Your task to perform on an android device: turn on the 12-hour format for clock Image 0: 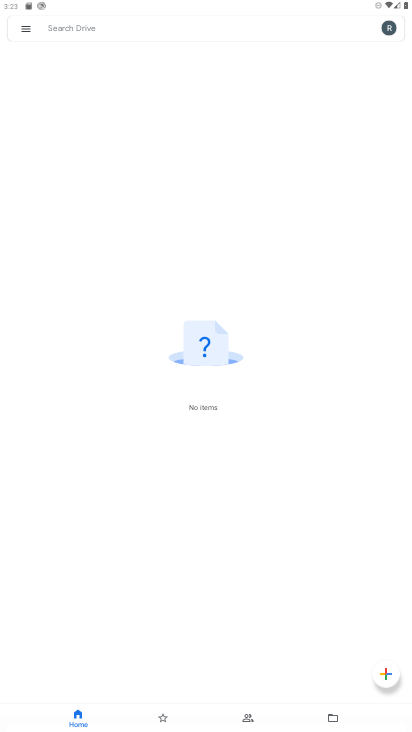
Step 0: press home button
Your task to perform on an android device: turn on the 12-hour format for clock Image 1: 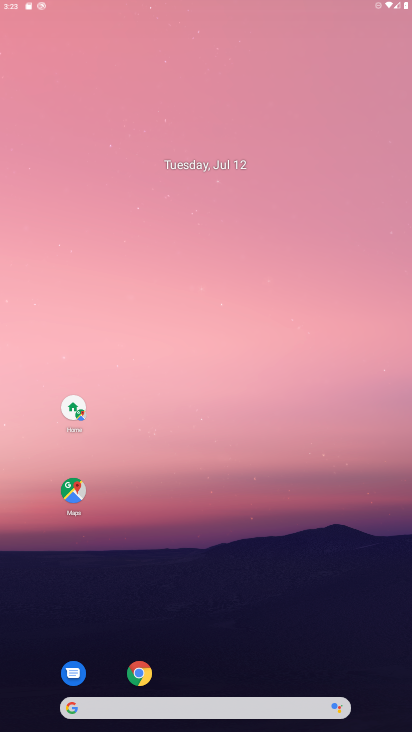
Step 1: drag from (206, 657) to (214, 274)
Your task to perform on an android device: turn on the 12-hour format for clock Image 2: 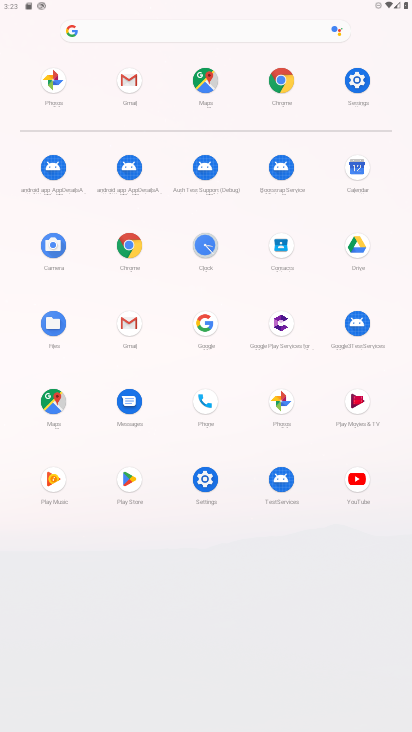
Step 2: click (207, 241)
Your task to perform on an android device: turn on the 12-hour format for clock Image 3: 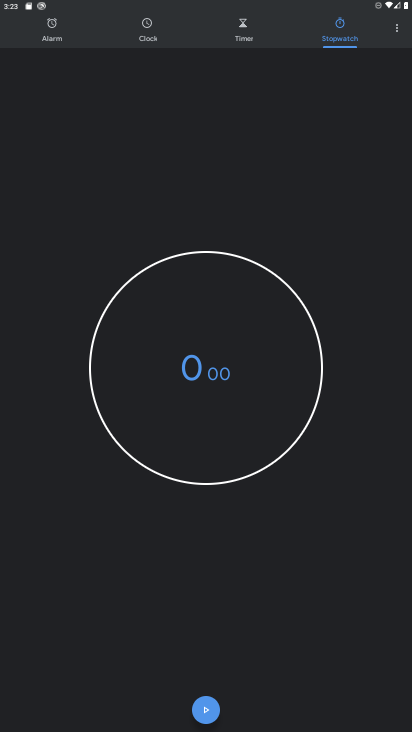
Step 3: click (402, 20)
Your task to perform on an android device: turn on the 12-hour format for clock Image 4: 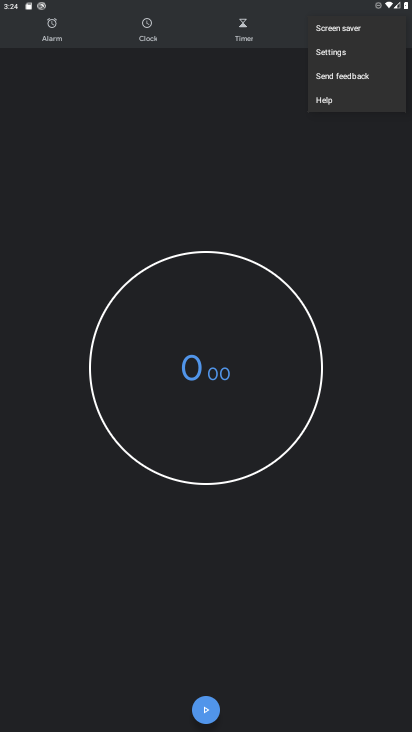
Step 4: click (342, 51)
Your task to perform on an android device: turn on the 12-hour format for clock Image 5: 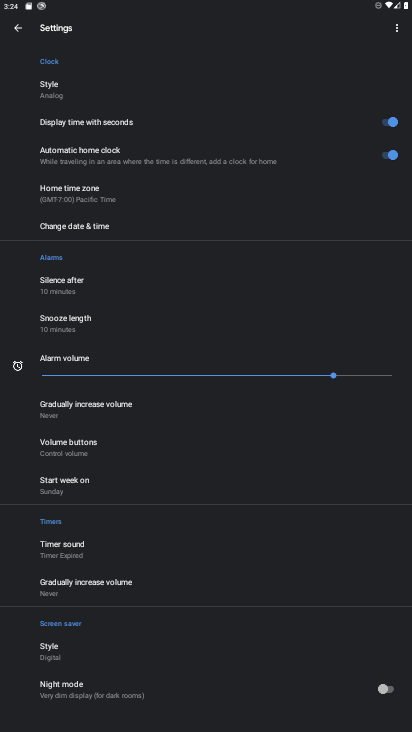
Step 5: click (103, 222)
Your task to perform on an android device: turn on the 12-hour format for clock Image 6: 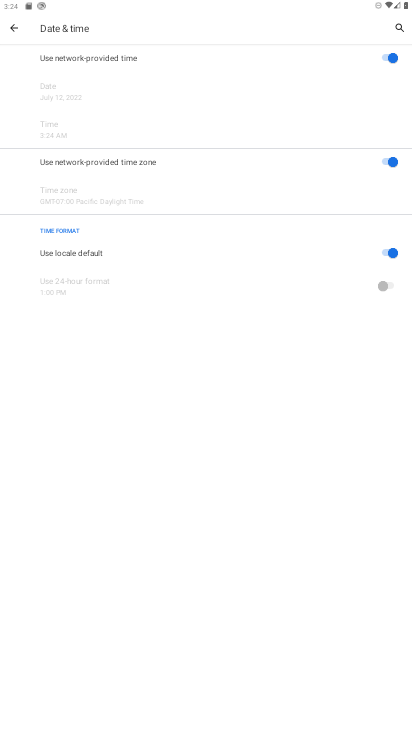
Step 6: click (388, 248)
Your task to perform on an android device: turn on the 12-hour format for clock Image 7: 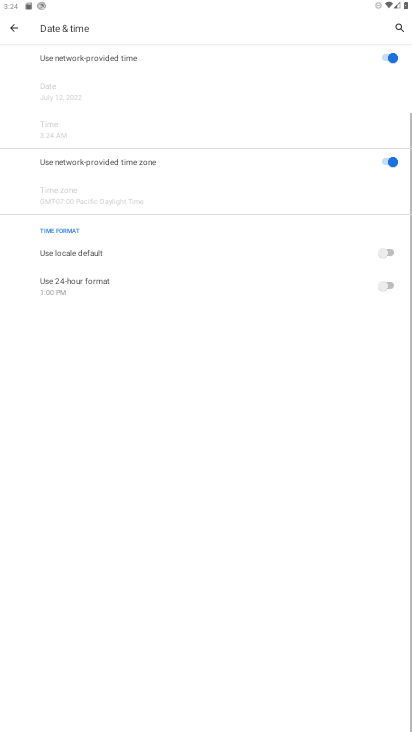
Step 7: click (388, 283)
Your task to perform on an android device: turn on the 12-hour format for clock Image 8: 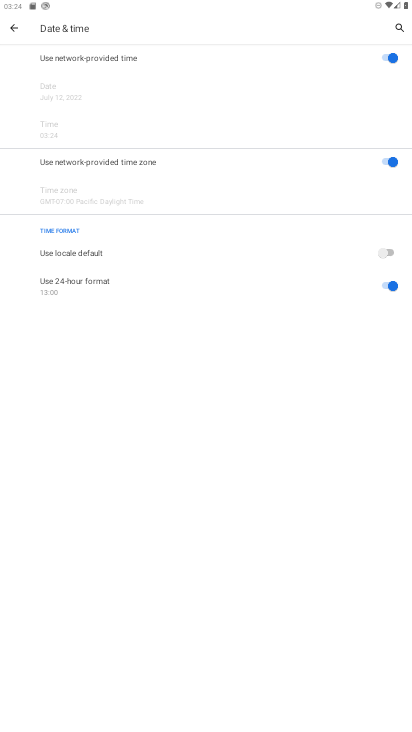
Step 8: task complete